Your task to perform on an android device: When is my next meeting? Image 0: 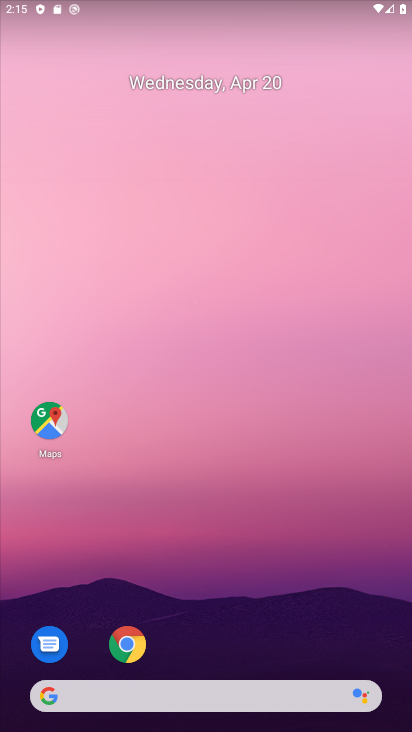
Step 0: drag from (337, 629) to (208, 125)
Your task to perform on an android device: When is my next meeting? Image 1: 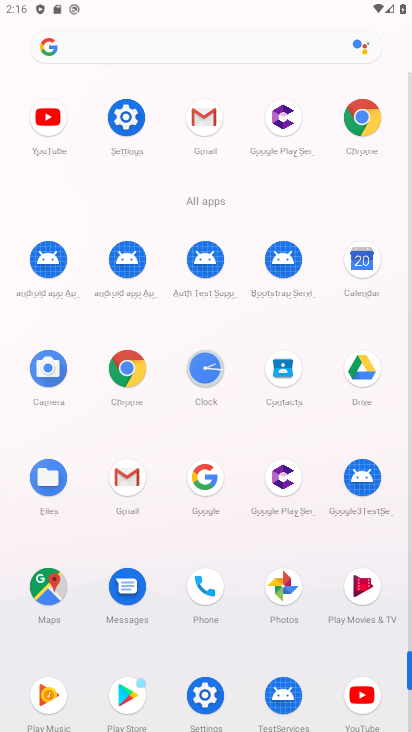
Step 1: click (360, 260)
Your task to perform on an android device: When is my next meeting? Image 2: 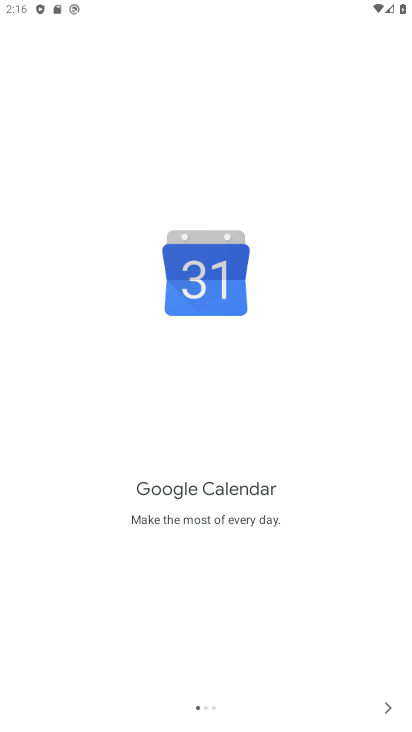
Step 2: click (384, 704)
Your task to perform on an android device: When is my next meeting? Image 3: 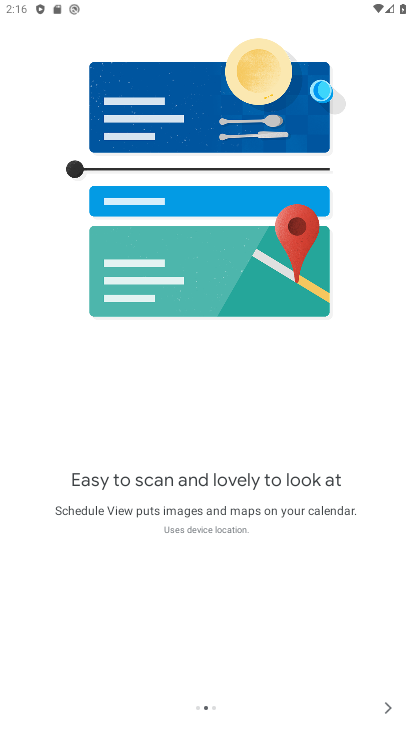
Step 3: click (389, 706)
Your task to perform on an android device: When is my next meeting? Image 4: 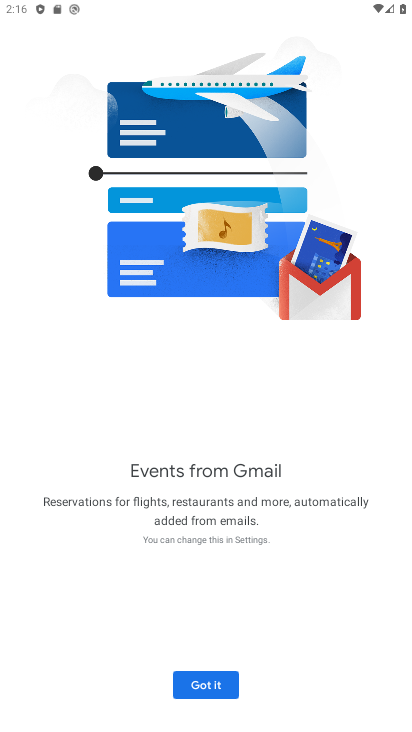
Step 4: click (200, 679)
Your task to perform on an android device: When is my next meeting? Image 5: 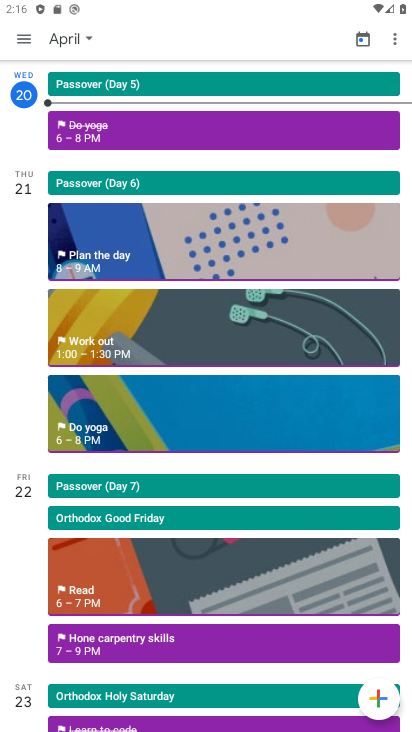
Step 5: task complete